Your task to perform on an android device: Open the stopwatch Image 0: 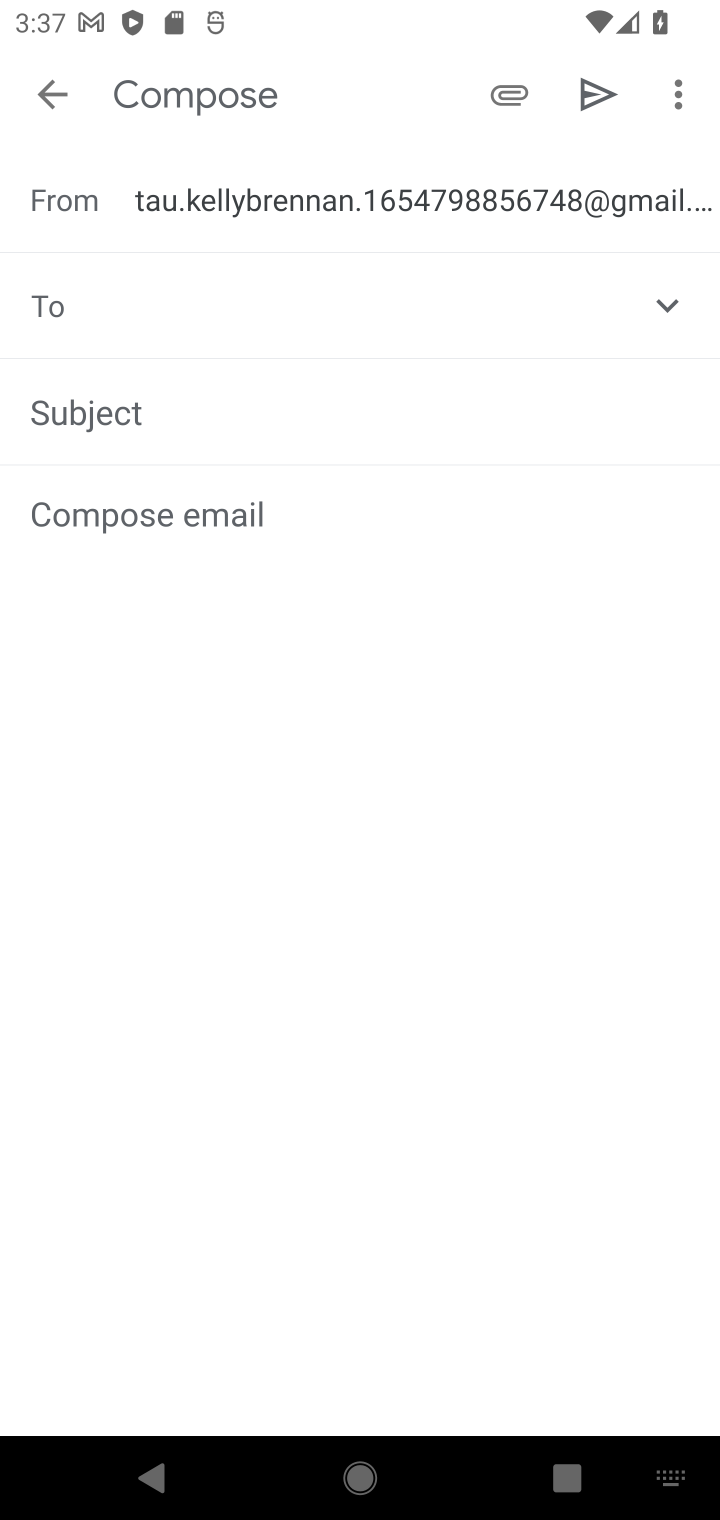
Step 0: press home button
Your task to perform on an android device: Open the stopwatch Image 1: 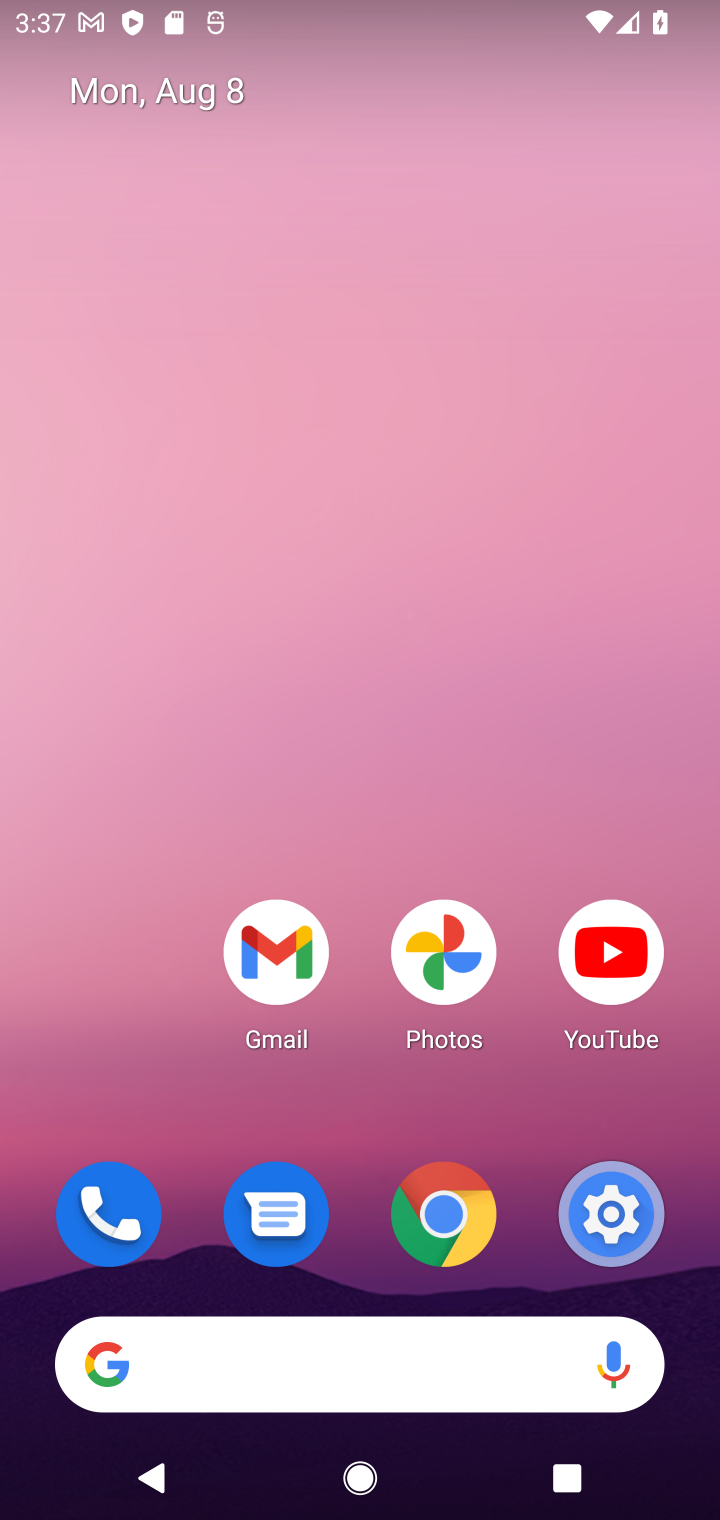
Step 1: drag from (351, 1220) to (310, 679)
Your task to perform on an android device: Open the stopwatch Image 2: 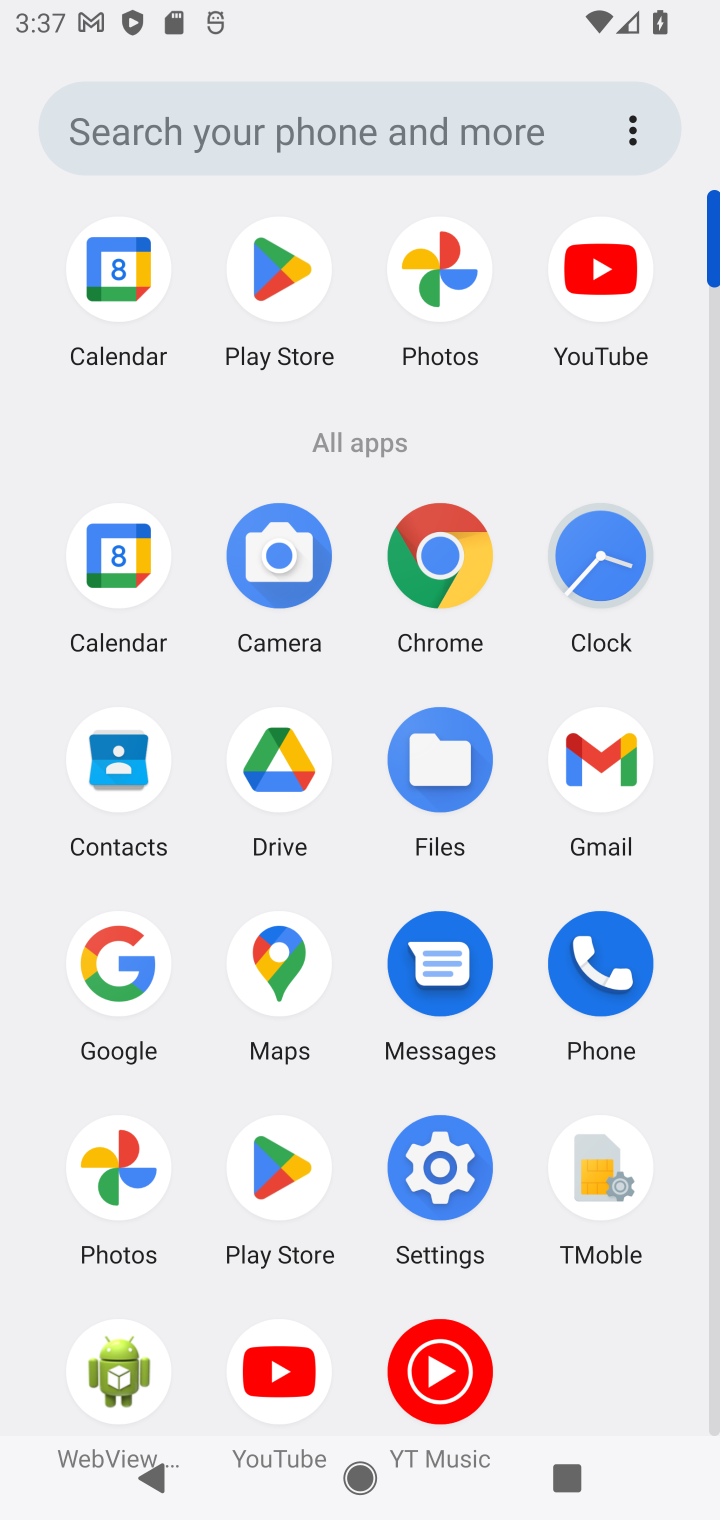
Step 2: click (618, 561)
Your task to perform on an android device: Open the stopwatch Image 3: 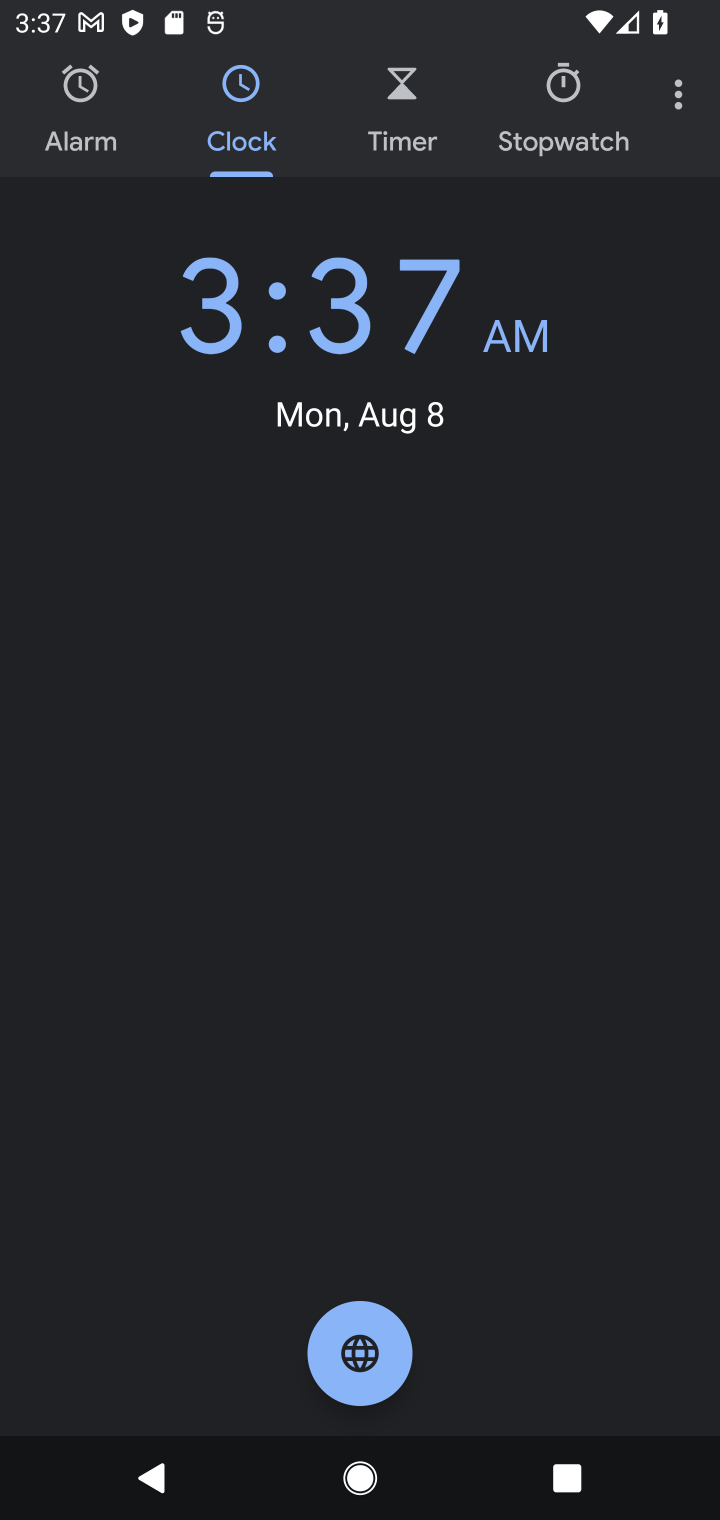
Step 3: click (575, 78)
Your task to perform on an android device: Open the stopwatch Image 4: 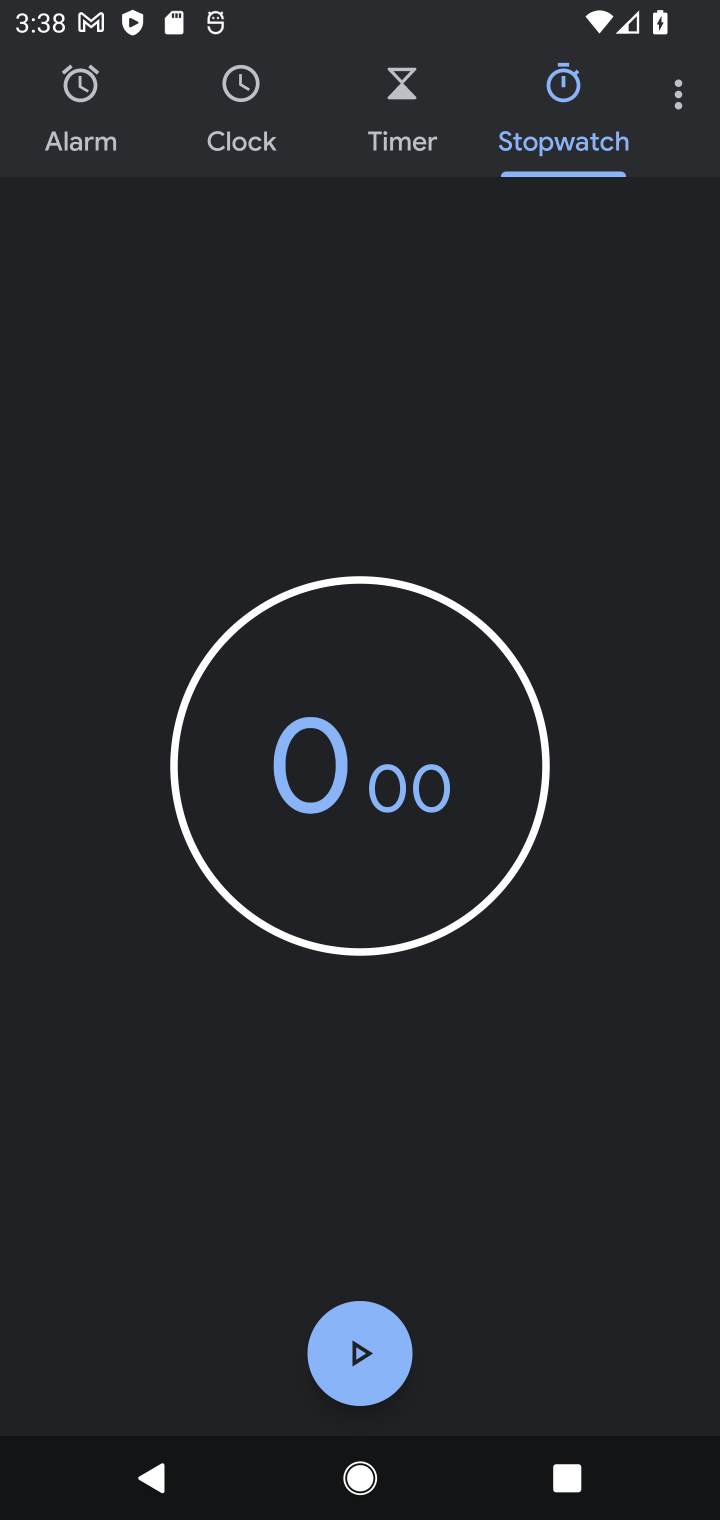
Step 4: task complete